Your task to perform on an android device: Search for Mexican restaurants on Maps Image 0: 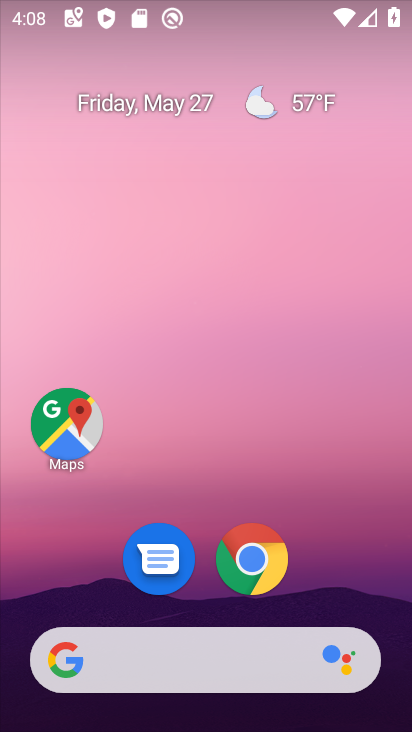
Step 0: click (171, 687)
Your task to perform on an android device: Search for Mexican restaurants on Maps Image 1: 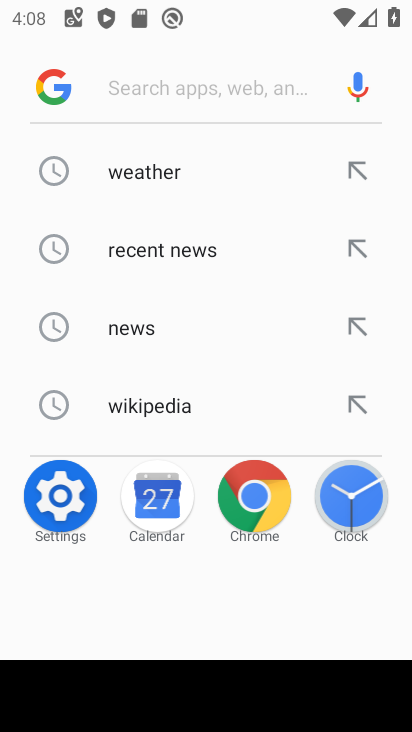
Step 1: press home button
Your task to perform on an android device: Search for Mexican restaurants on Maps Image 2: 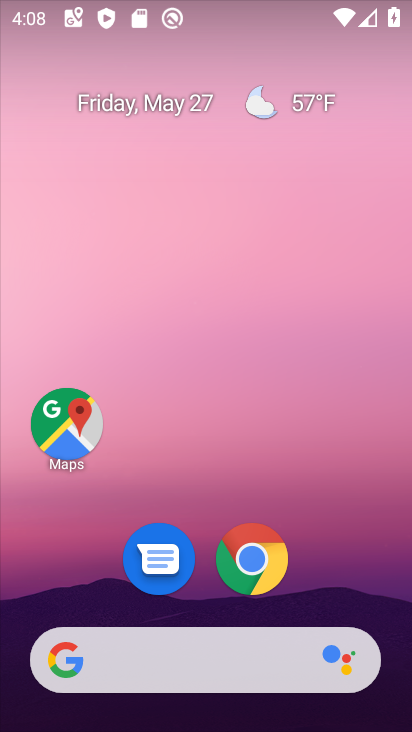
Step 2: click (67, 429)
Your task to perform on an android device: Search for Mexican restaurants on Maps Image 3: 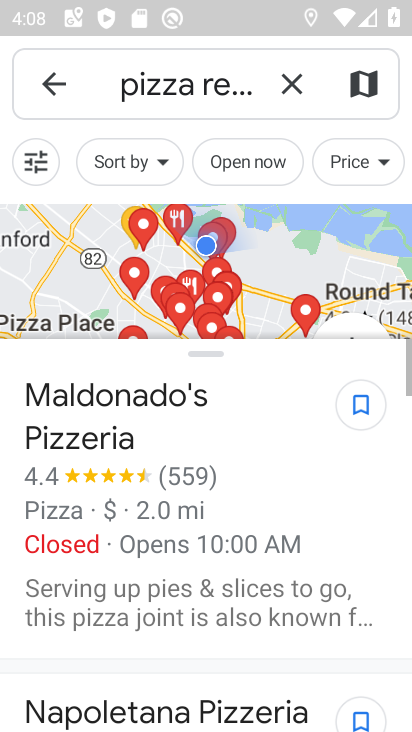
Step 3: click (280, 89)
Your task to perform on an android device: Search for Mexican restaurants on Maps Image 4: 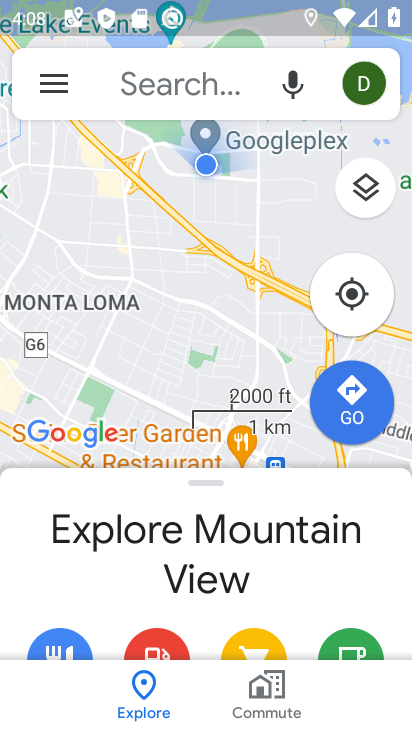
Step 4: click (204, 89)
Your task to perform on an android device: Search for Mexican restaurants on Maps Image 5: 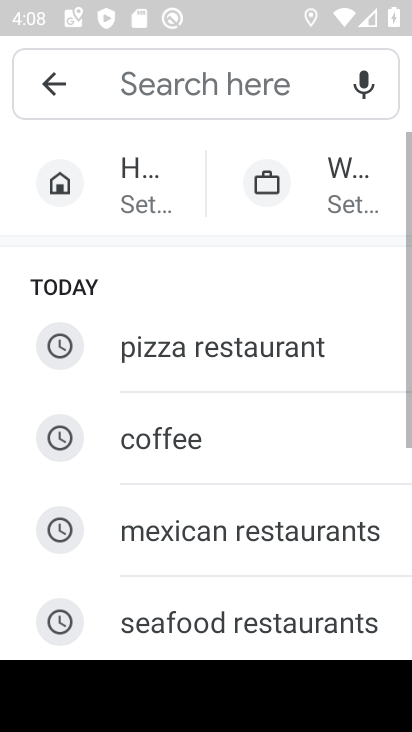
Step 5: click (192, 534)
Your task to perform on an android device: Search for Mexican restaurants on Maps Image 6: 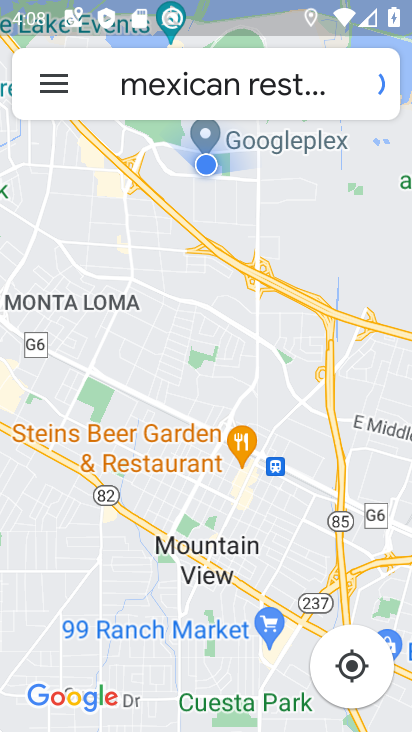
Step 6: task complete